Your task to perform on an android device: move an email to a new category in the gmail app Image 0: 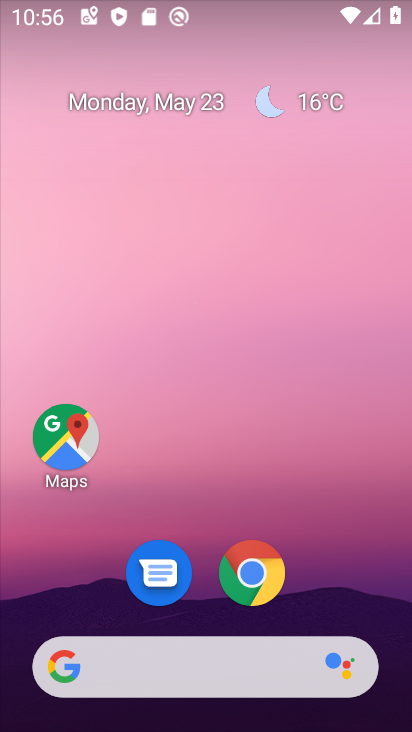
Step 0: drag from (312, 568) to (234, 65)
Your task to perform on an android device: move an email to a new category in the gmail app Image 1: 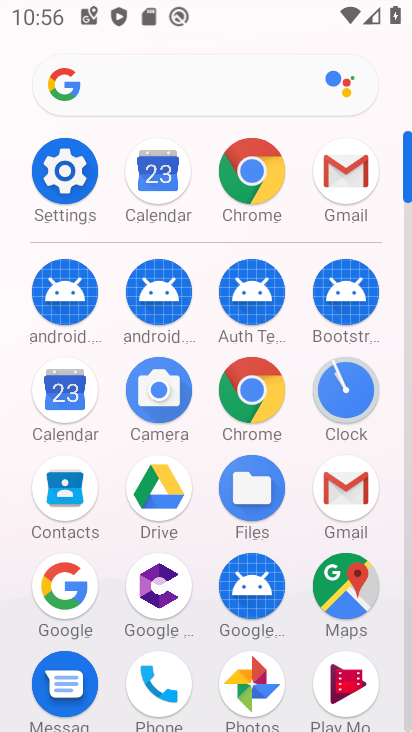
Step 1: drag from (6, 591) to (5, 289)
Your task to perform on an android device: move an email to a new category in the gmail app Image 2: 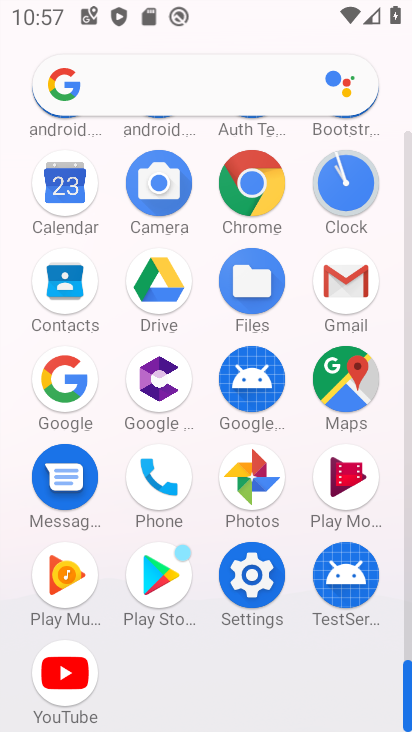
Step 2: click (343, 275)
Your task to perform on an android device: move an email to a new category in the gmail app Image 3: 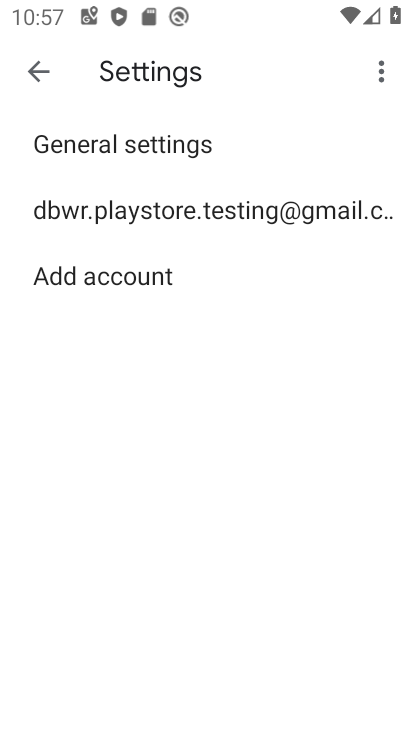
Step 3: click (111, 204)
Your task to perform on an android device: move an email to a new category in the gmail app Image 4: 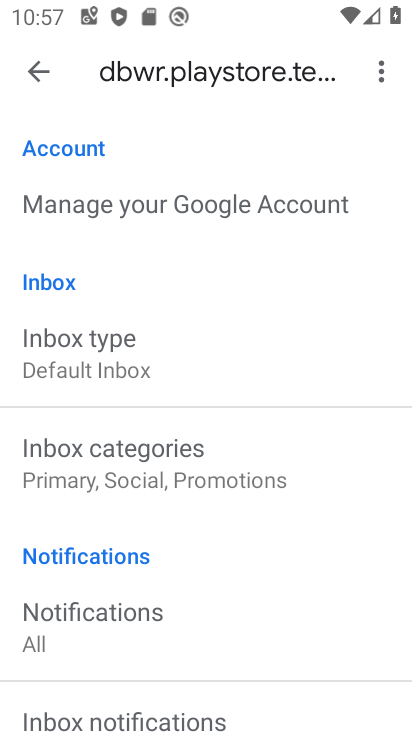
Step 4: click (26, 71)
Your task to perform on an android device: move an email to a new category in the gmail app Image 5: 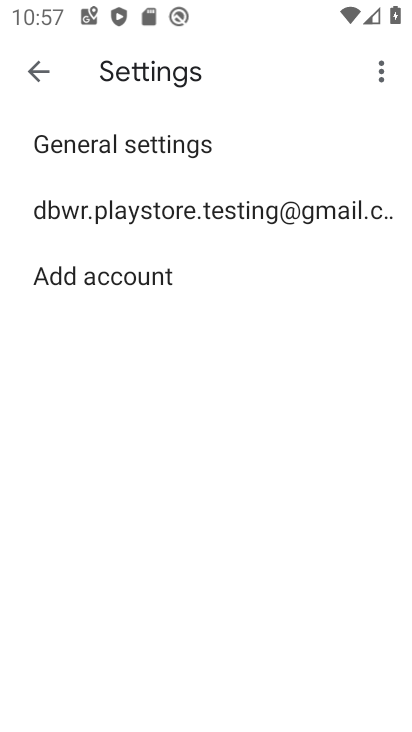
Step 5: click (34, 71)
Your task to perform on an android device: move an email to a new category in the gmail app Image 6: 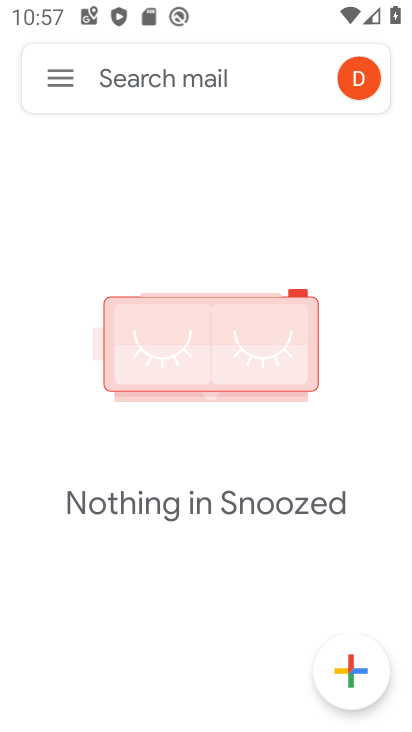
Step 6: click (44, 73)
Your task to perform on an android device: move an email to a new category in the gmail app Image 7: 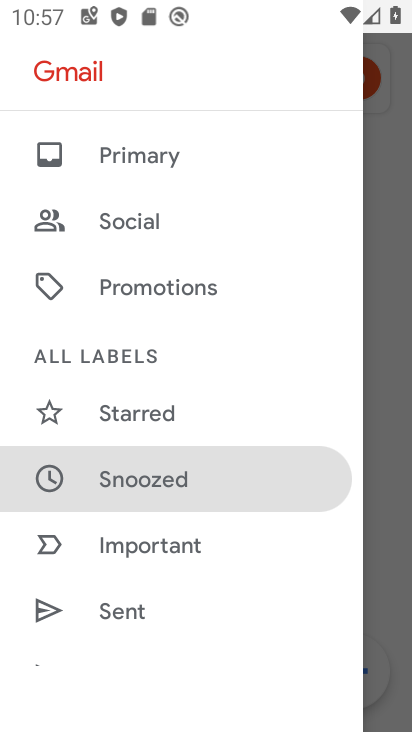
Step 7: drag from (236, 184) to (246, 603)
Your task to perform on an android device: move an email to a new category in the gmail app Image 8: 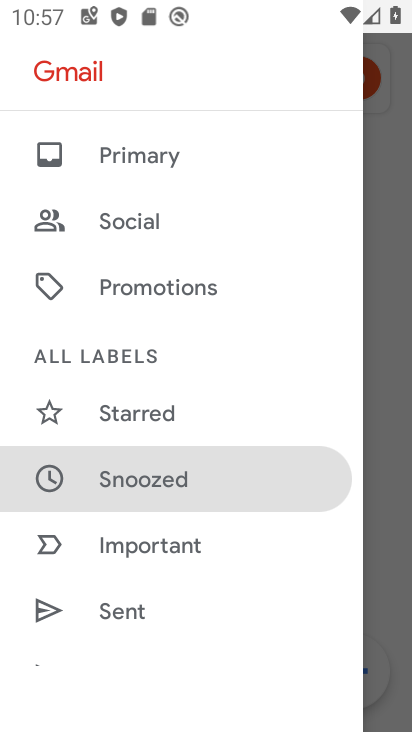
Step 8: click (189, 157)
Your task to perform on an android device: move an email to a new category in the gmail app Image 9: 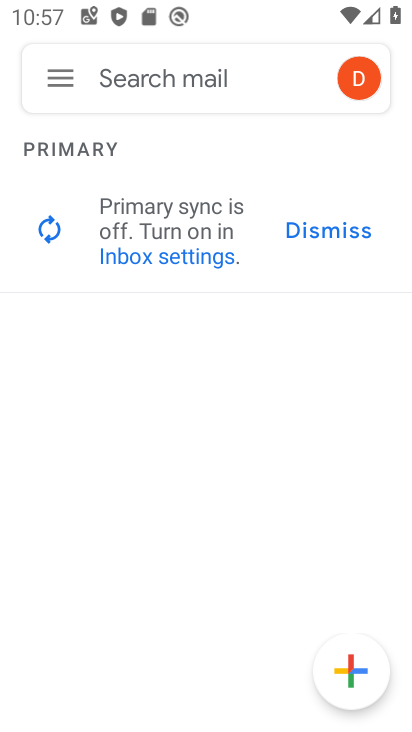
Step 9: click (53, 71)
Your task to perform on an android device: move an email to a new category in the gmail app Image 10: 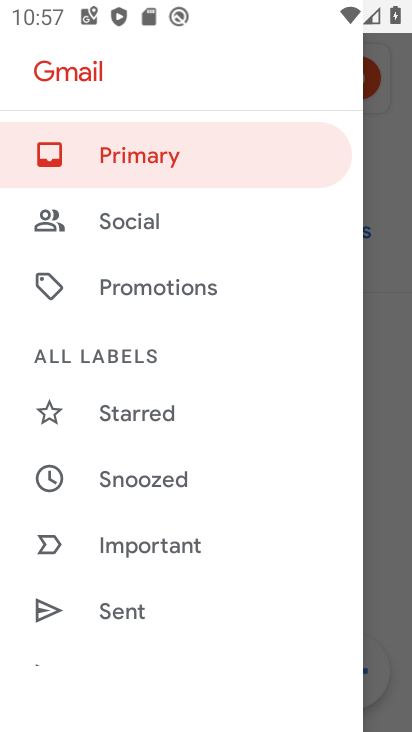
Step 10: drag from (240, 600) to (237, 189)
Your task to perform on an android device: move an email to a new category in the gmail app Image 11: 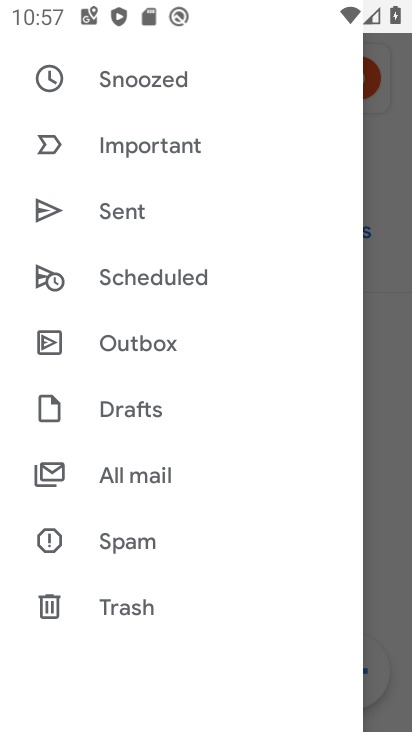
Step 11: click (148, 472)
Your task to perform on an android device: move an email to a new category in the gmail app Image 12: 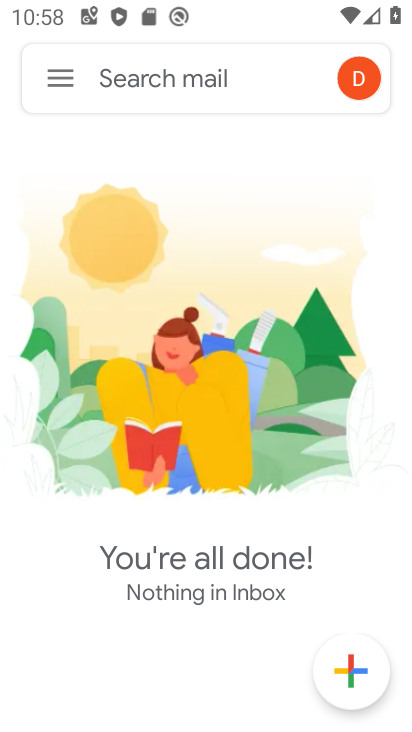
Step 12: task complete